Your task to perform on an android device: uninstall "Airtel Thanks" Image 0: 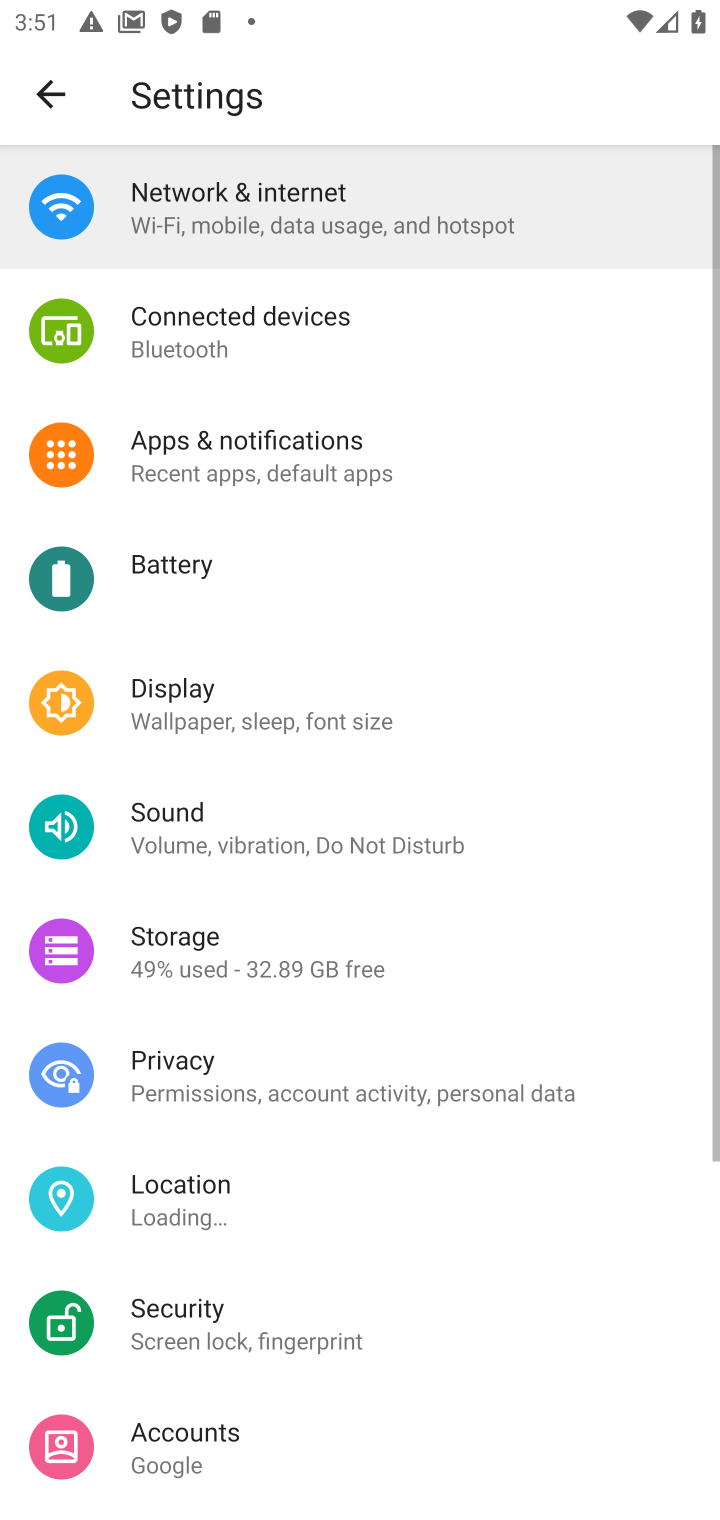
Step 0: press back button
Your task to perform on an android device: uninstall "Airtel Thanks" Image 1: 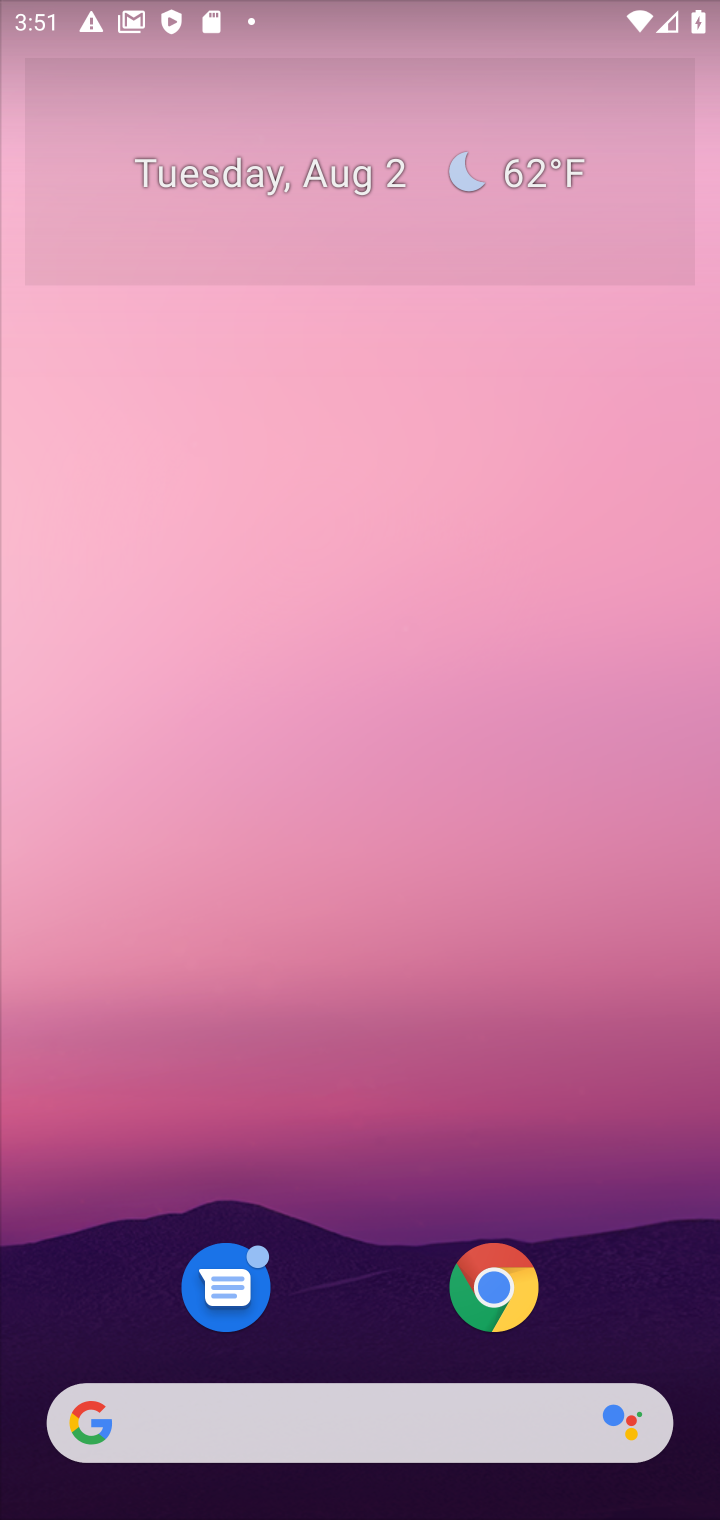
Step 1: drag from (364, 1286) to (532, 11)
Your task to perform on an android device: uninstall "Airtel Thanks" Image 2: 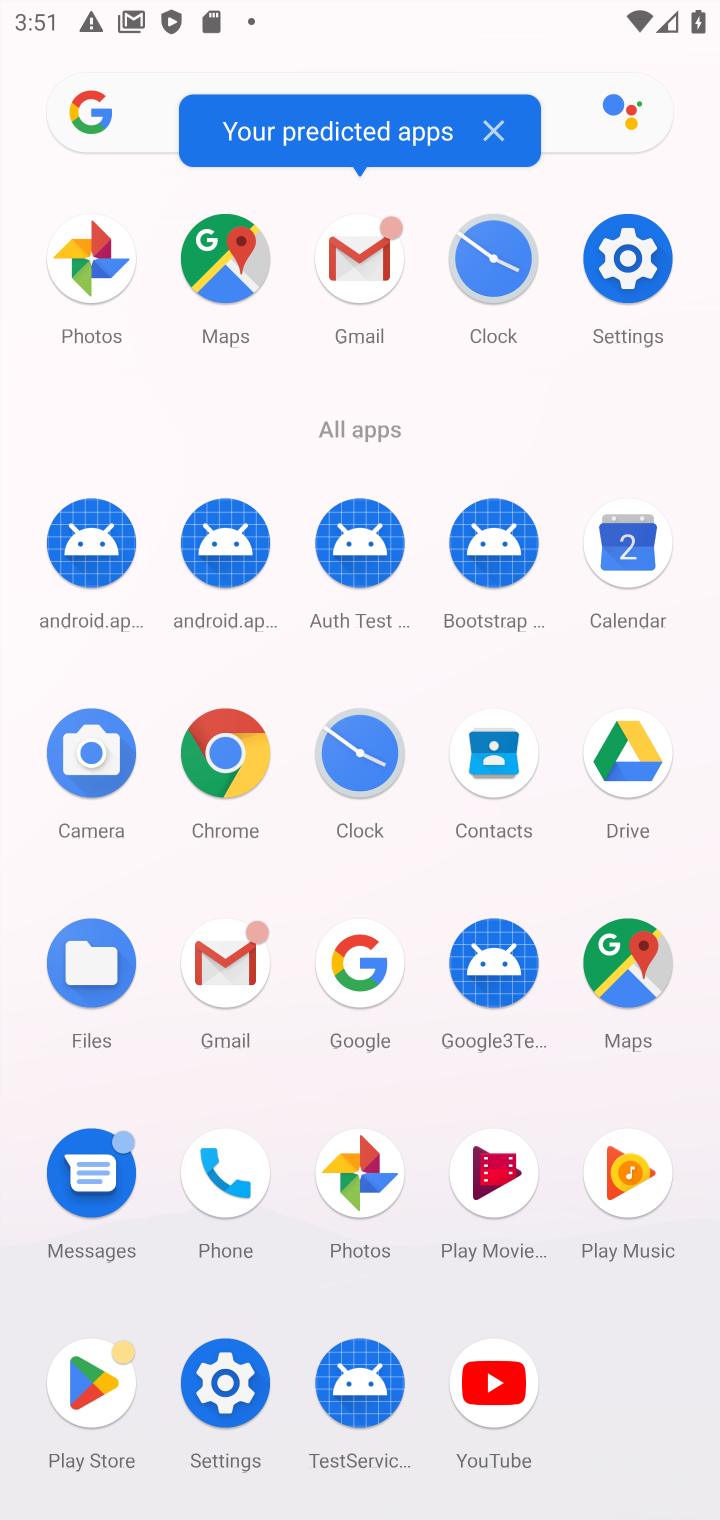
Step 2: click (102, 1392)
Your task to perform on an android device: uninstall "Airtel Thanks" Image 3: 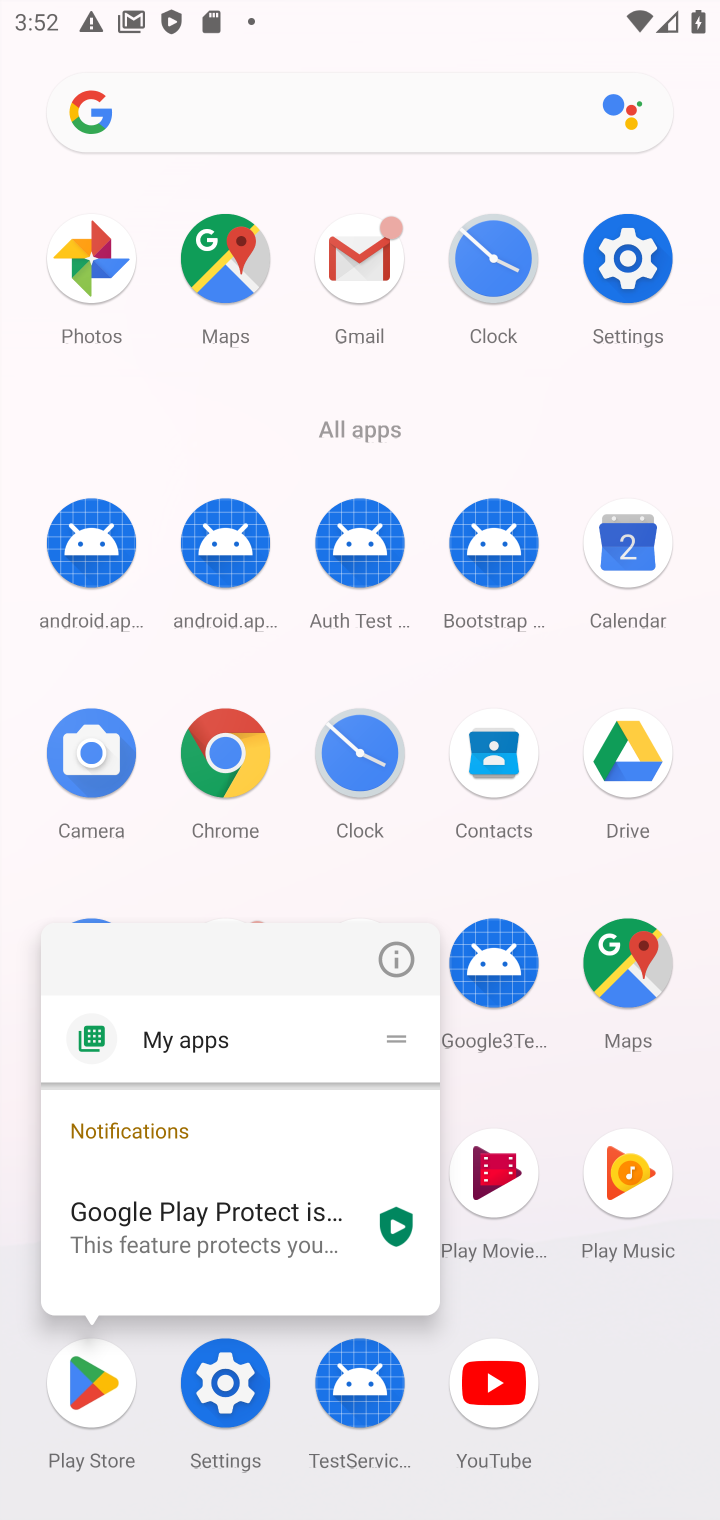
Step 3: click (77, 1395)
Your task to perform on an android device: uninstall "Airtel Thanks" Image 4: 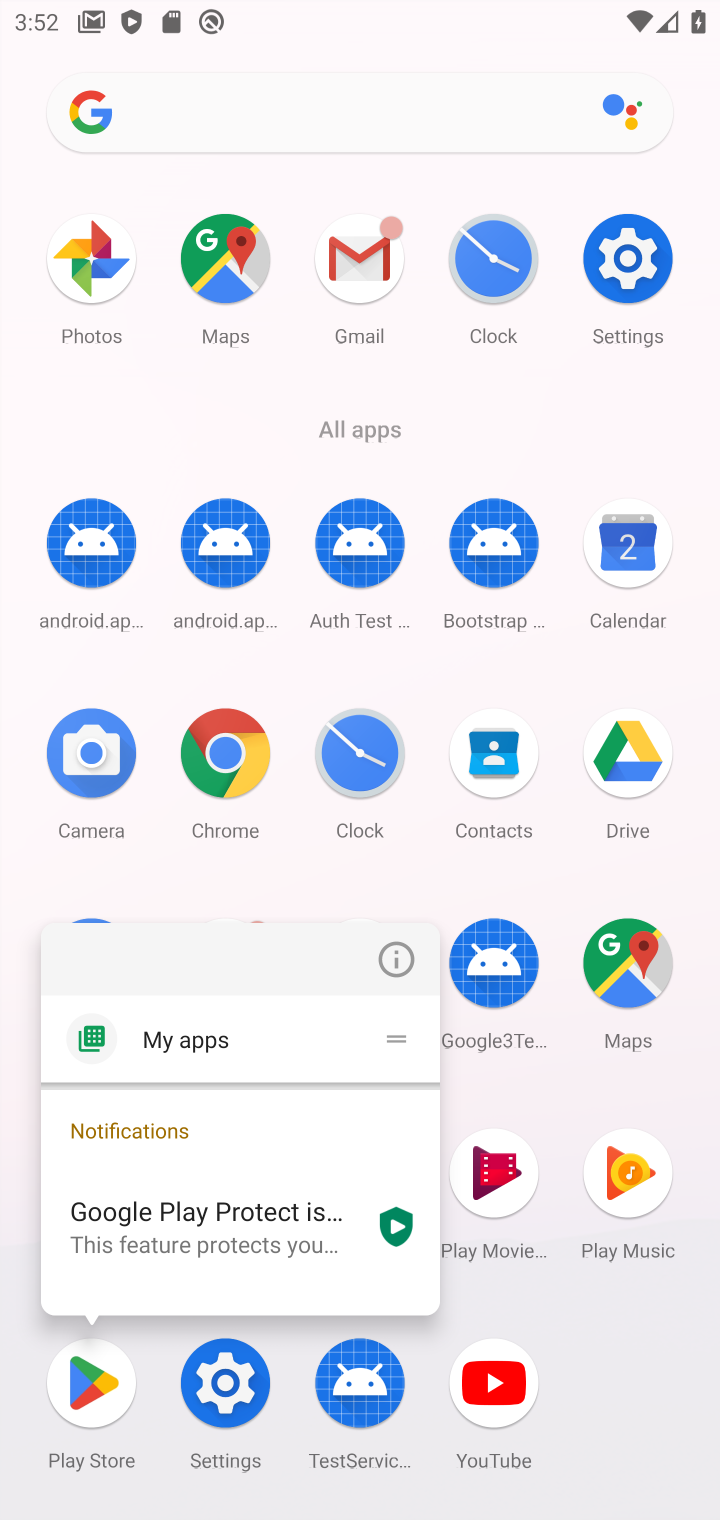
Step 4: click (85, 1410)
Your task to perform on an android device: uninstall "Airtel Thanks" Image 5: 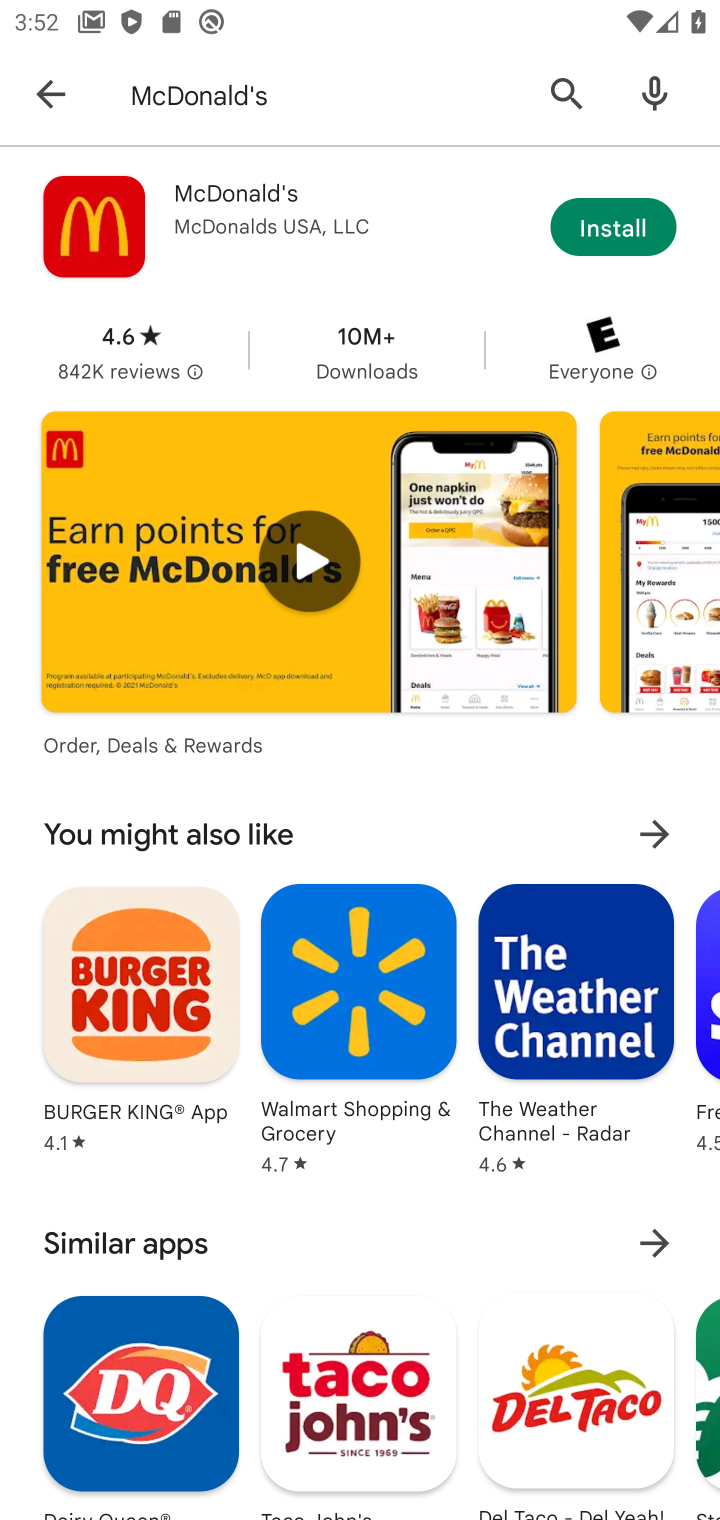
Step 5: click (564, 107)
Your task to perform on an android device: uninstall "Airtel Thanks" Image 6: 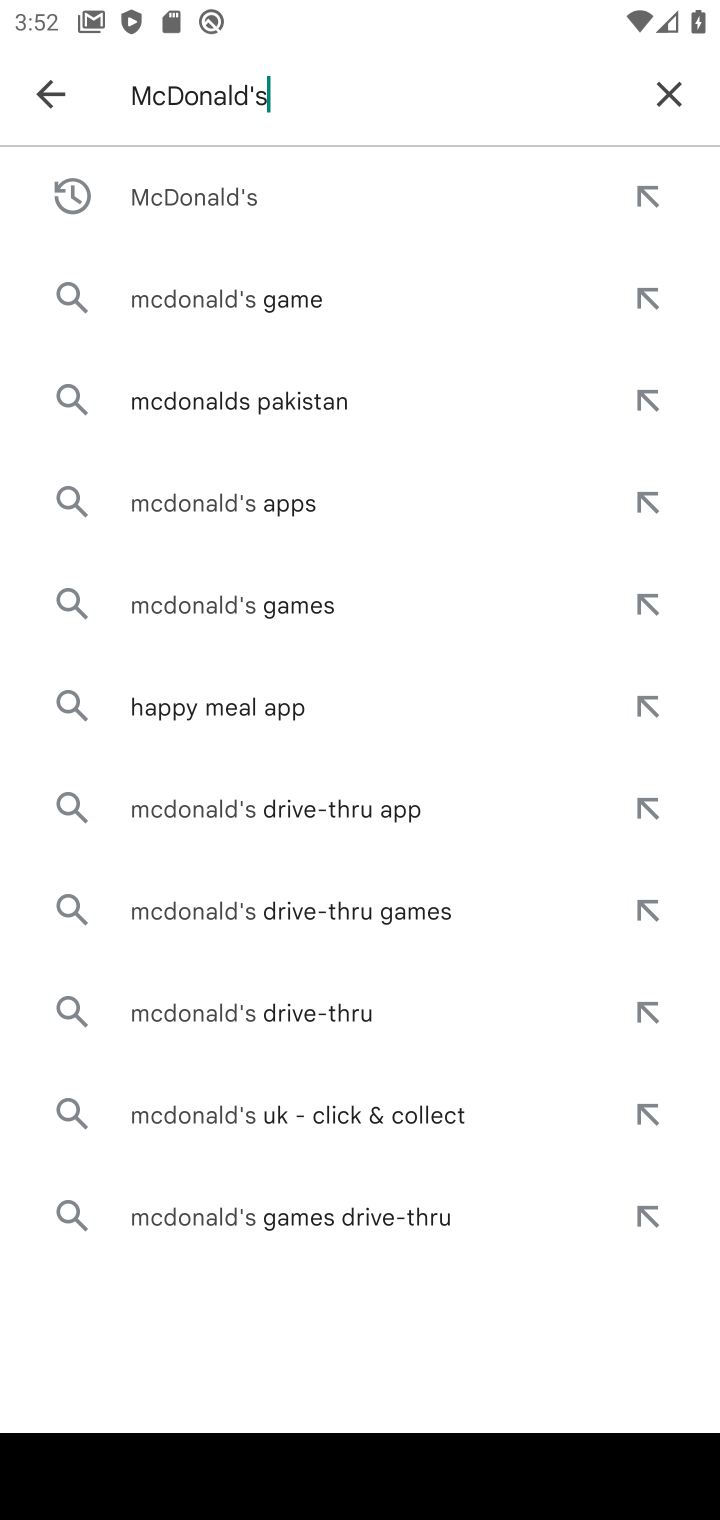
Step 6: click (661, 108)
Your task to perform on an android device: uninstall "Airtel Thanks" Image 7: 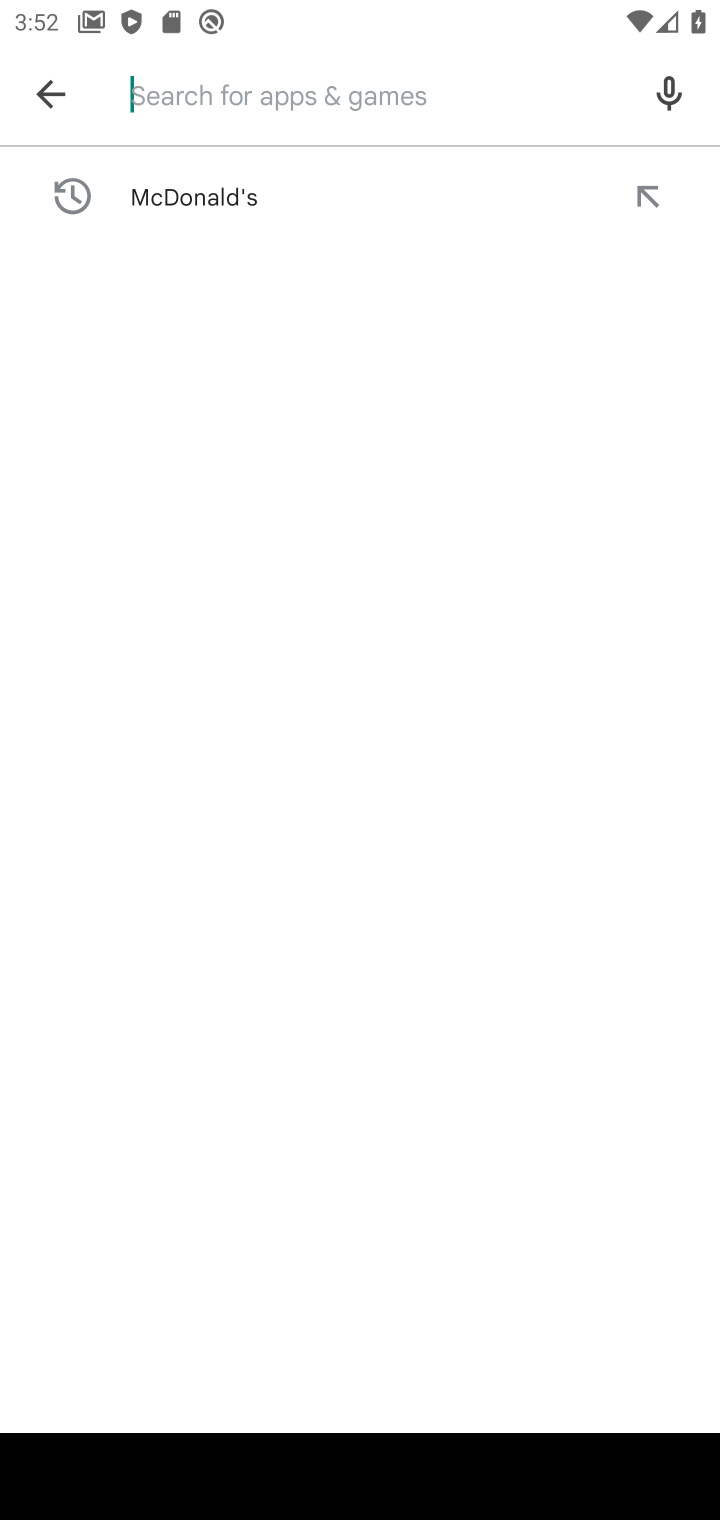
Step 7: type "Airtel Thanks"
Your task to perform on an android device: uninstall "Airtel Thanks" Image 8: 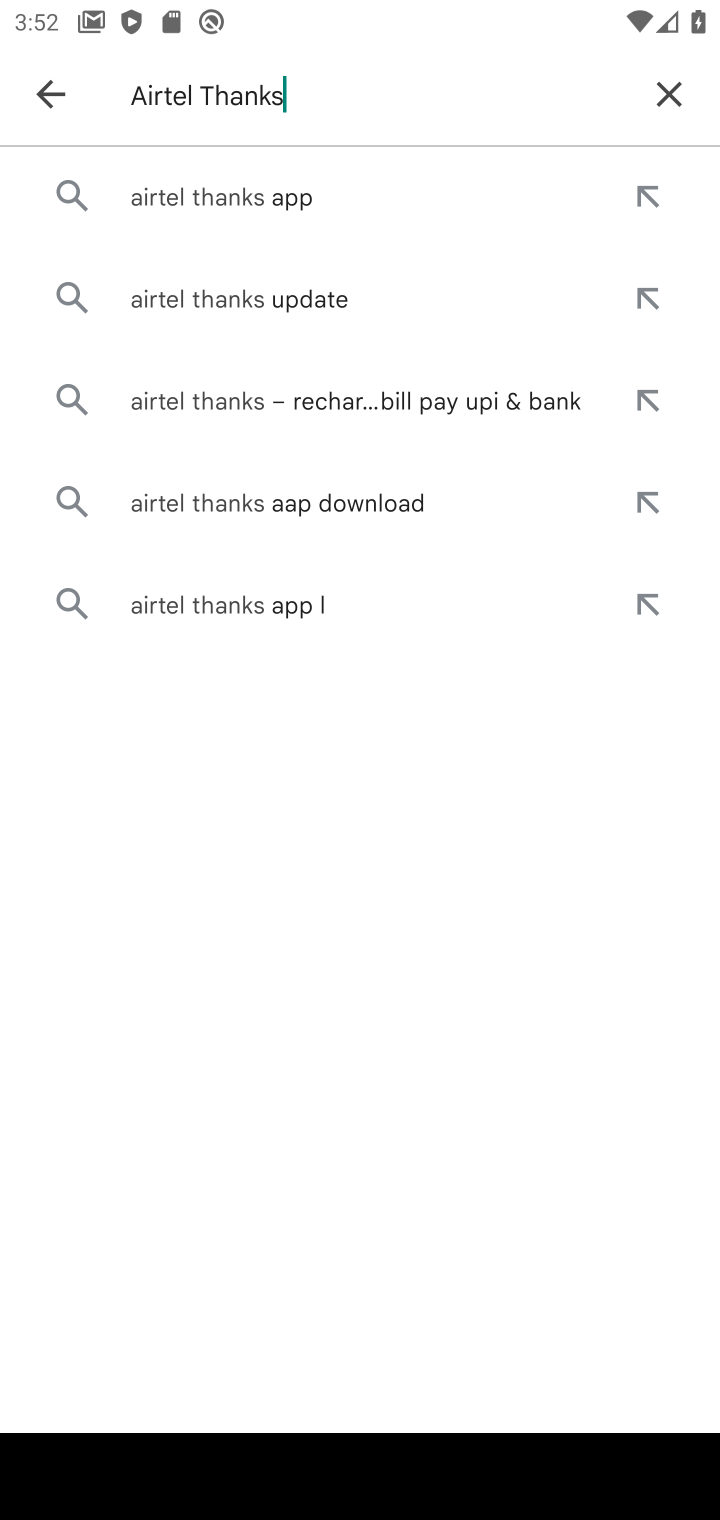
Step 8: click (271, 216)
Your task to perform on an android device: uninstall "Airtel Thanks" Image 9: 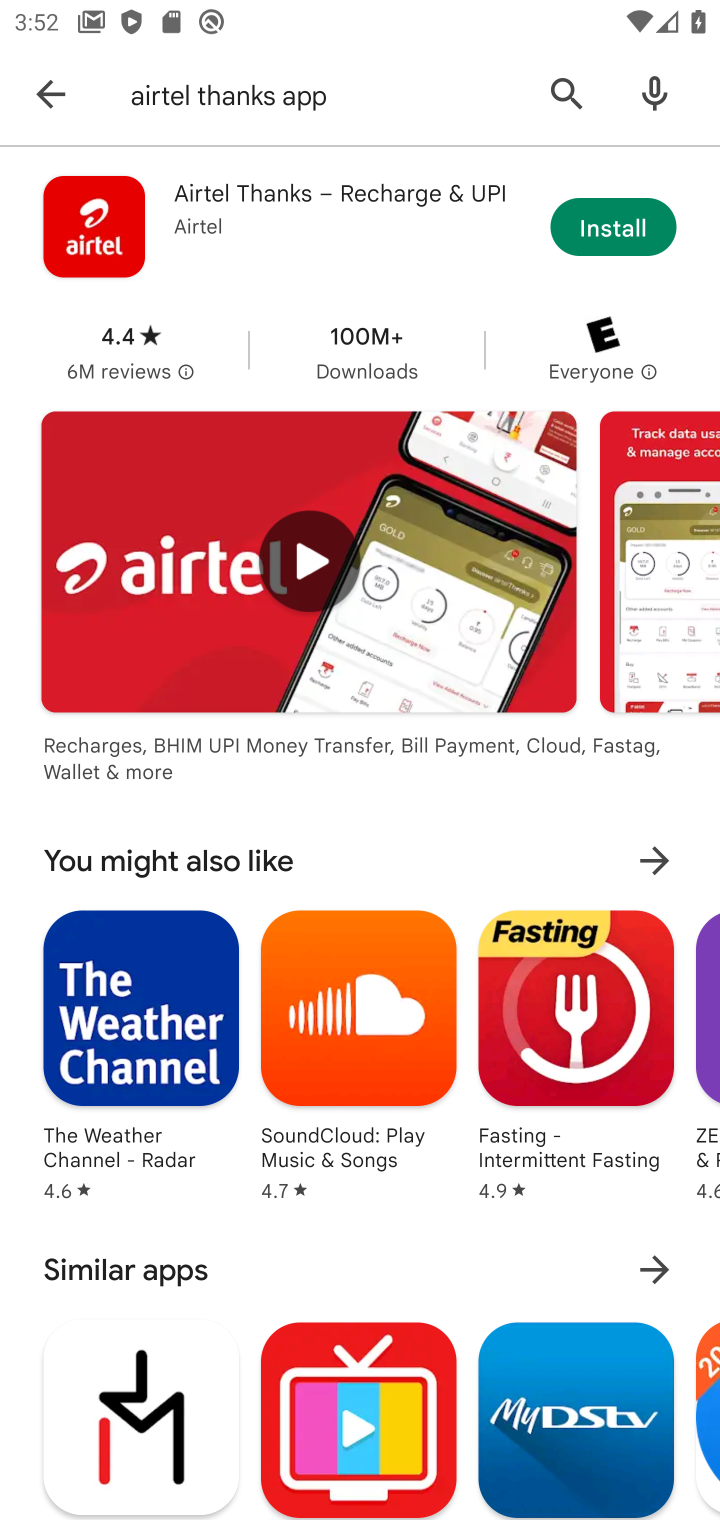
Step 9: task complete